Your task to perform on an android device: move an email to a new category in the gmail app Image 0: 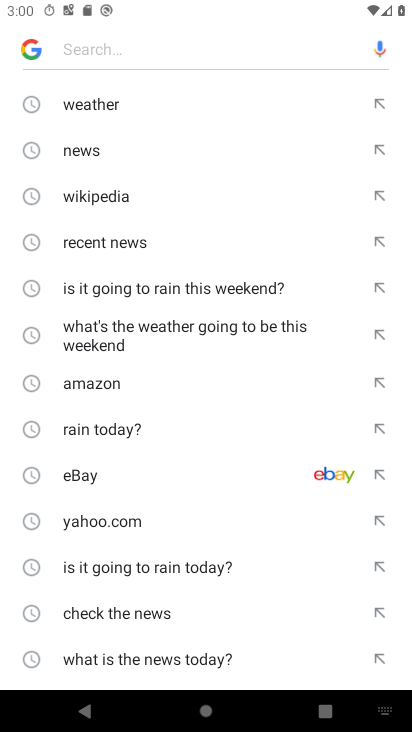
Step 0: press home button
Your task to perform on an android device: move an email to a new category in the gmail app Image 1: 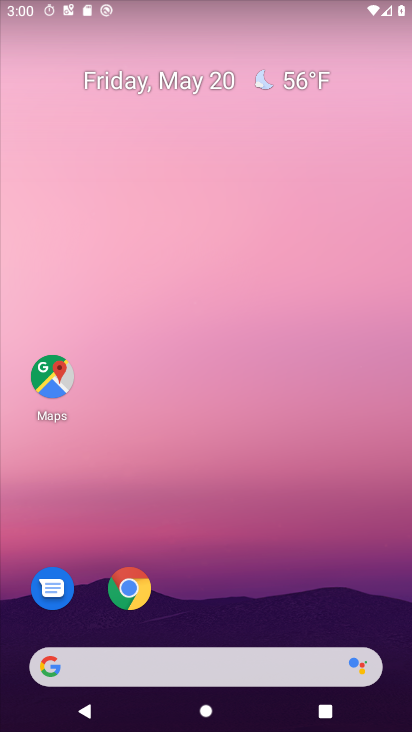
Step 1: drag from (10, 494) to (131, 79)
Your task to perform on an android device: move an email to a new category in the gmail app Image 2: 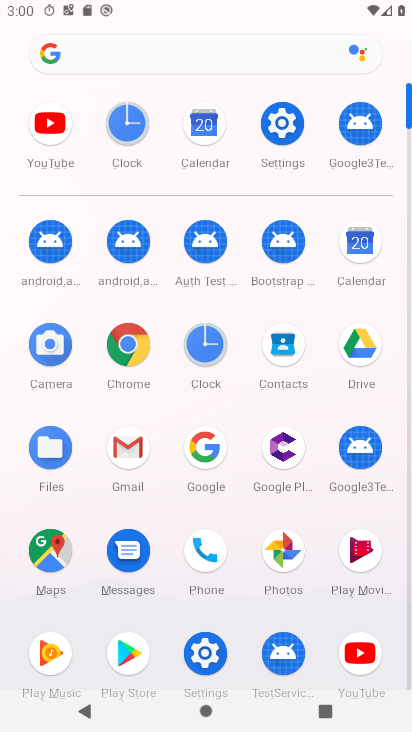
Step 2: click (136, 451)
Your task to perform on an android device: move an email to a new category in the gmail app Image 3: 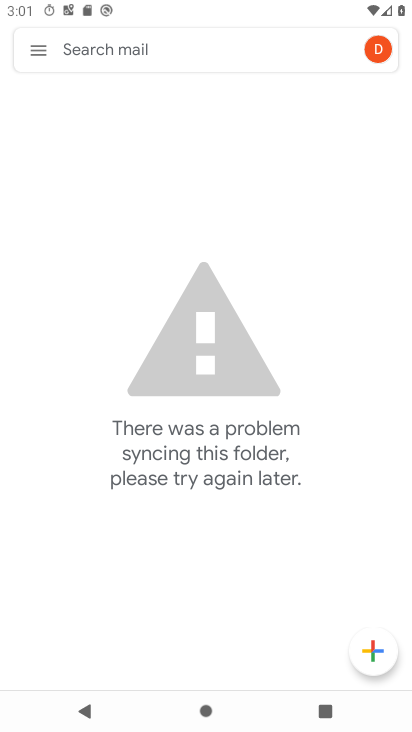
Step 3: task complete